Your task to perform on an android device: Open Chrome and go to settings Image 0: 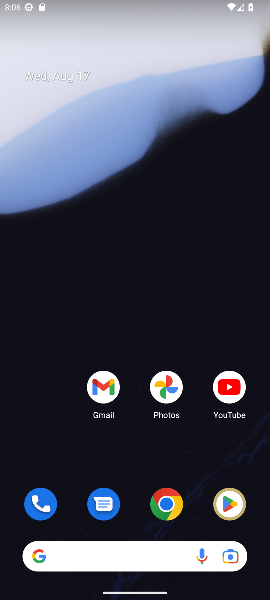
Step 0: drag from (135, 404) to (160, 145)
Your task to perform on an android device: Open Chrome and go to settings Image 1: 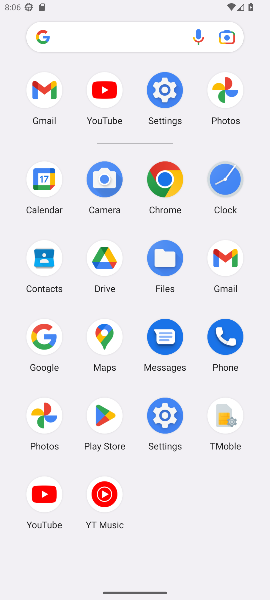
Step 1: click (175, 194)
Your task to perform on an android device: Open Chrome and go to settings Image 2: 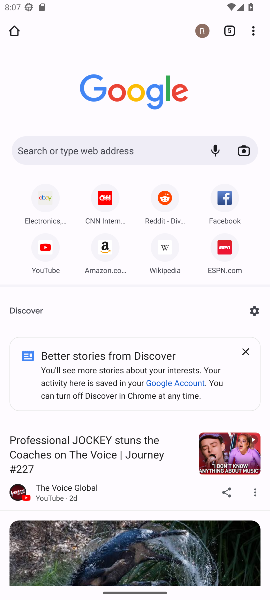
Step 2: click (256, 35)
Your task to perform on an android device: Open Chrome and go to settings Image 3: 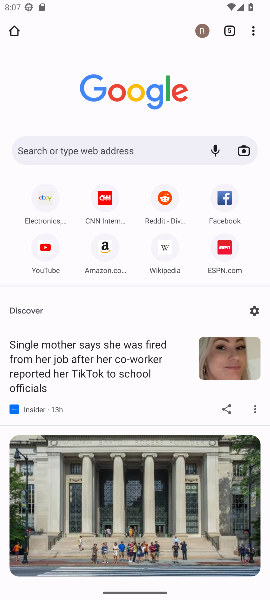
Step 3: click (254, 32)
Your task to perform on an android device: Open Chrome and go to settings Image 4: 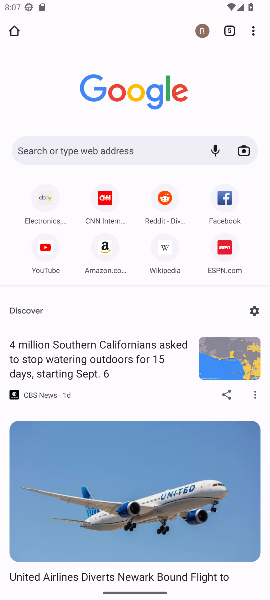
Step 4: click (254, 34)
Your task to perform on an android device: Open Chrome and go to settings Image 5: 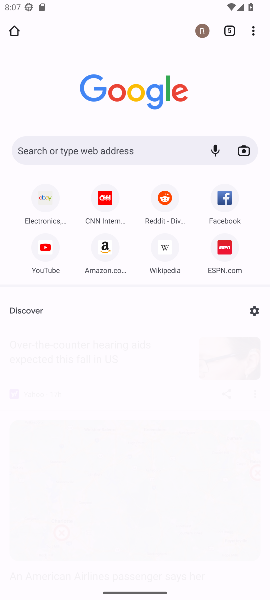
Step 5: click (254, 31)
Your task to perform on an android device: Open Chrome and go to settings Image 6: 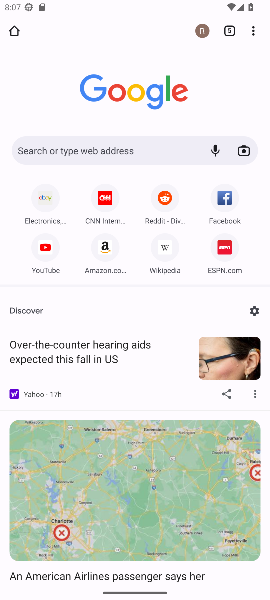
Step 6: click (252, 30)
Your task to perform on an android device: Open Chrome and go to settings Image 7: 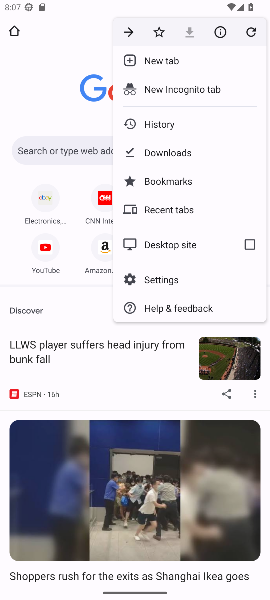
Step 7: click (181, 284)
Your task to perform on an android device: Open Chrome and go to settings Image 8: 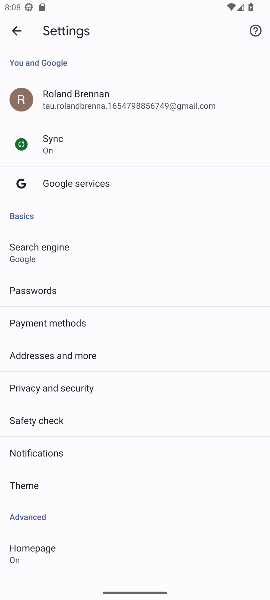
Step 8: task complete